Your task to perform on an android device: Search for seafood restaurants on Google Maps Image 0: 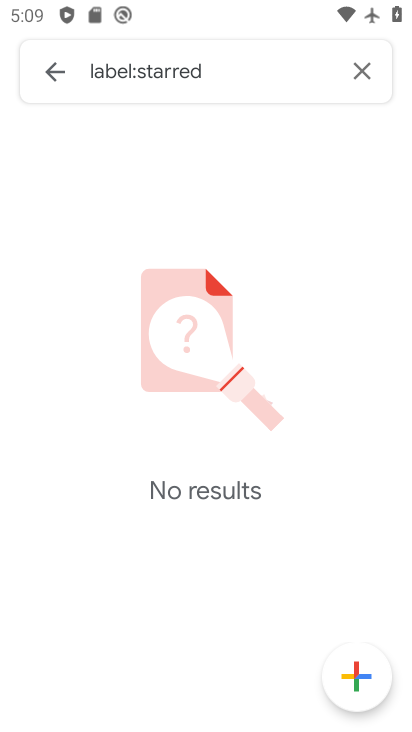
Step 0: press home button
Your task to perform on an android device: Search for seafood restaurants on Google Maps Image 1: 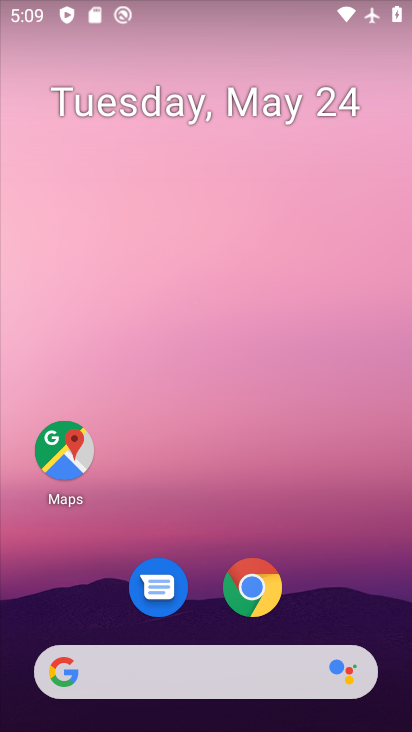
Step 1: click (58, 443)
Your task to perform on an android device: Search for seafood restaurants on Google Maps Image 2: 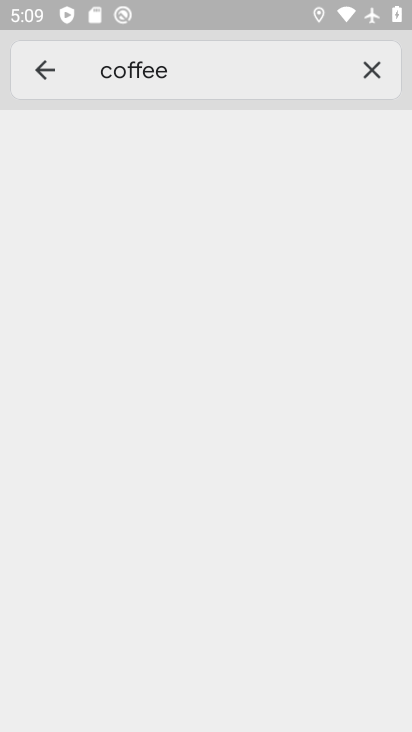
Step 2: click (365, 64)
Your task to perform on an android device: Search for seafood restaurants on Google Maps Image 3: 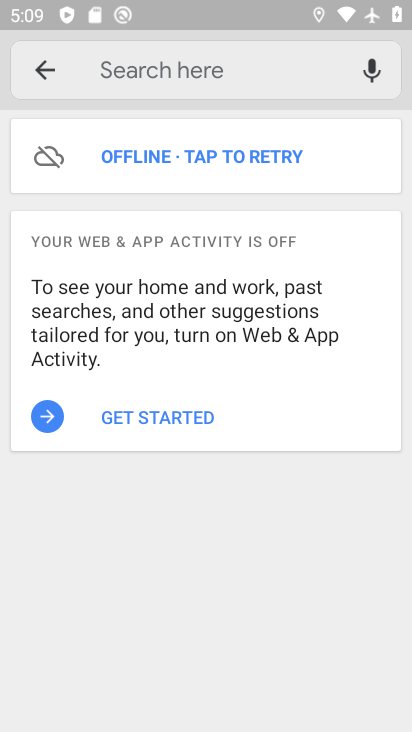
Step 3: click (183, 70)
Your task to perform on an android device: Search for seafood restaurants on Google Maps Image 4: 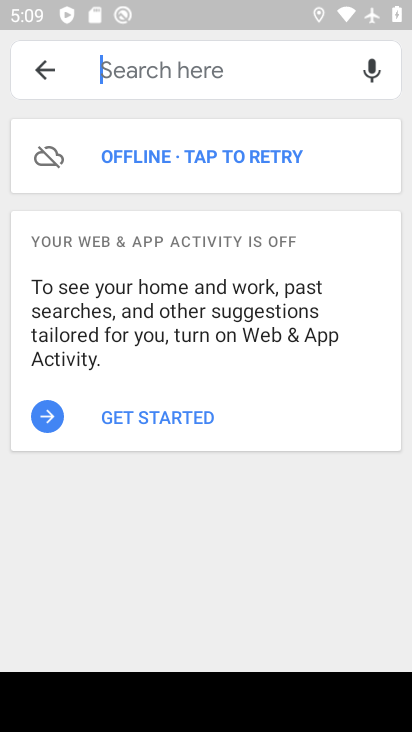
Step 4: type "seafood restaurants"
Your task to perform on an android device: Search for seafood restaurants on Google Maps Image 5: 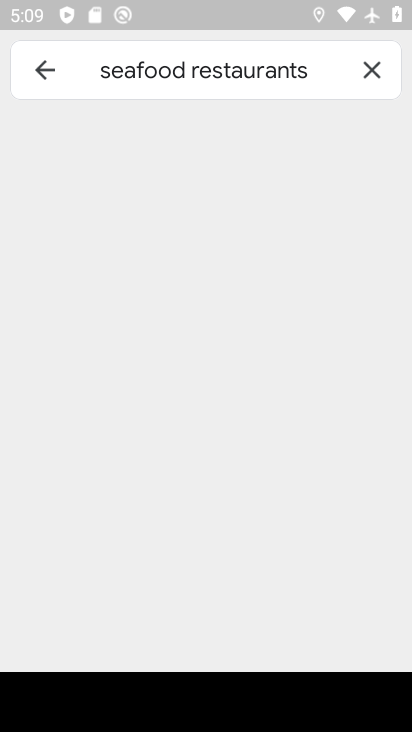
Step 5: task complete